Your task to perform on an android device: Set the phone to "Do not disturb". Image 0: 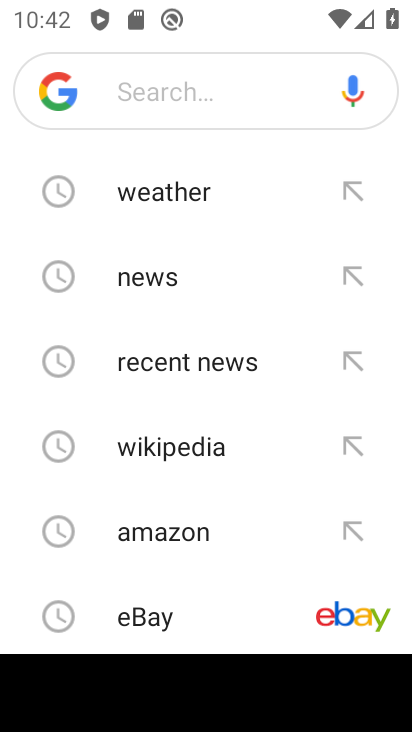
Step 0: press home button
Your task to perform on an android device: Set the phone to "Do not disturb". Image 1: 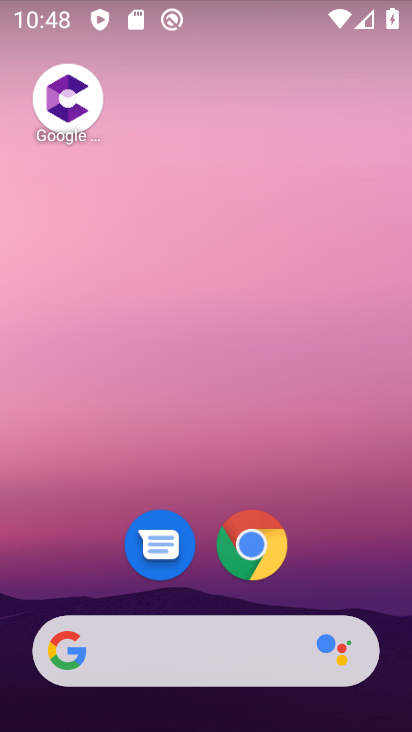
Step 1: drag from (133, 425) to (181, 56)
Your task to perform on an android device: Set the phone to "Do not disturb". Image 2: 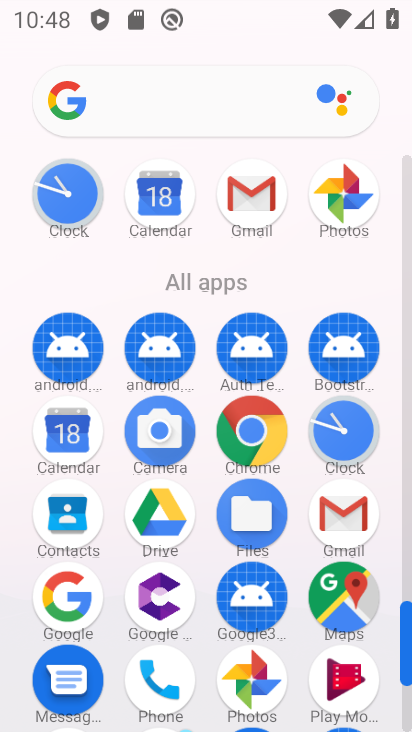
Step 2: drag from (213, 645) to (213, 107)
Your task to perform on an android device: Set the phone to "Do not disturb". Image 3: 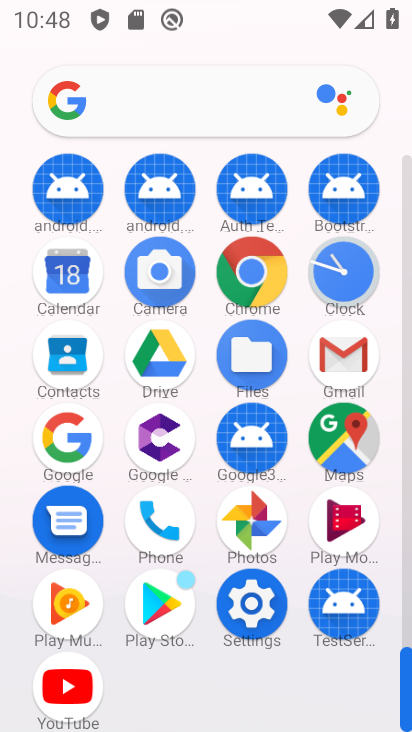
Step 3: click (257, 598)
Your task to perform on an android device: Set the phone to "Do not disturb". Image 4: 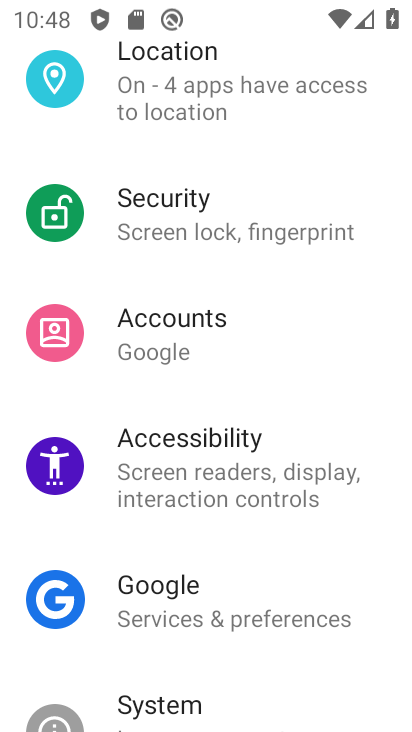
Step 4: drag from (326, 151) to (257, 582)
Your task to perform on an android device: Set the phone to "Do not disturb". Image 5: 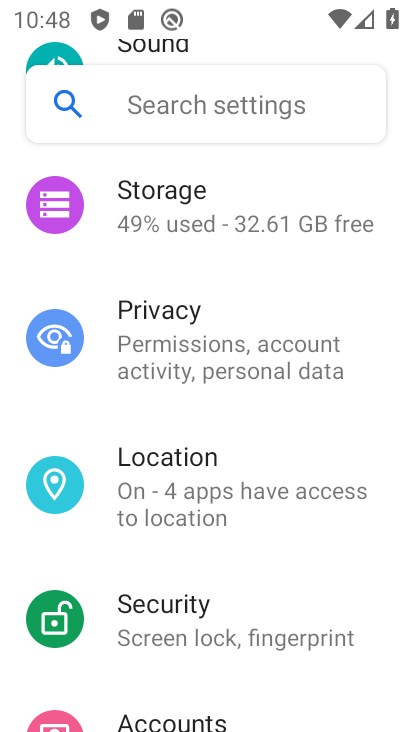
Step 5: drag from (266, 261) to (231, 625)
Your task to perform on an android device: Set the phone to "Do not disturb". Image 6: 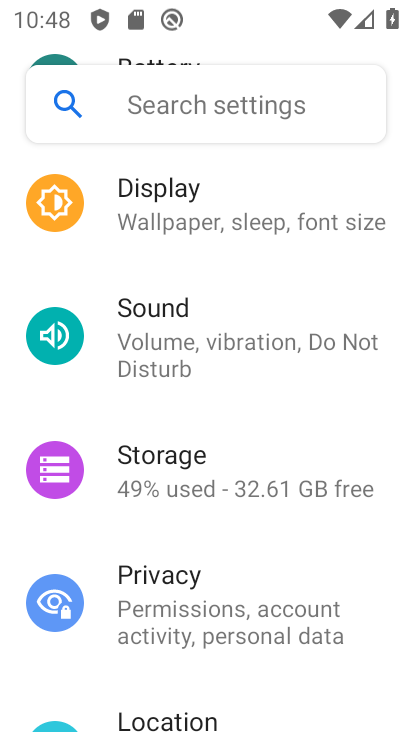
Step 6: drag from (296, 275) to (299, 622)
Your task to perform on an android device: Set the phone to "Do not disturb". Image 7: 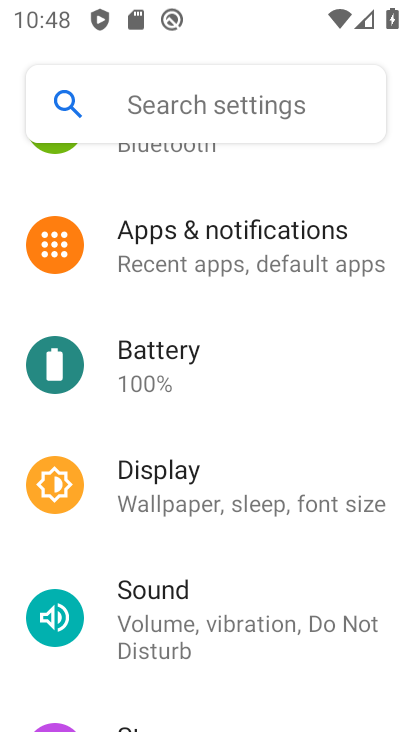
Step 7: click (231, 634)
Your task to perform on an android device: Set the phone to "Do not disturb". Image 8: 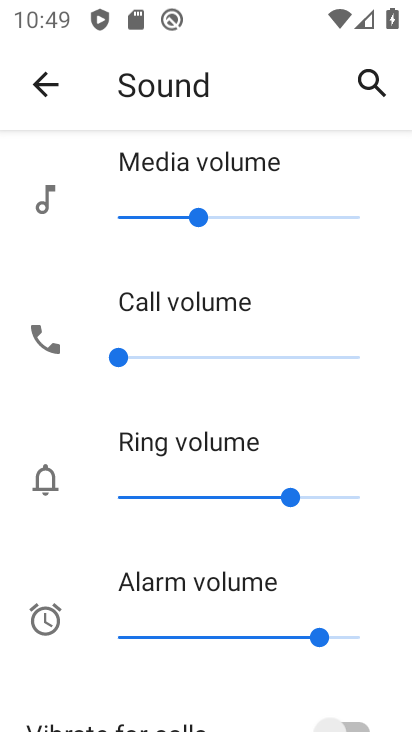
Step 8: task complete